Your task to perform on an android device: Do I have any events tomorrow? Image 0: 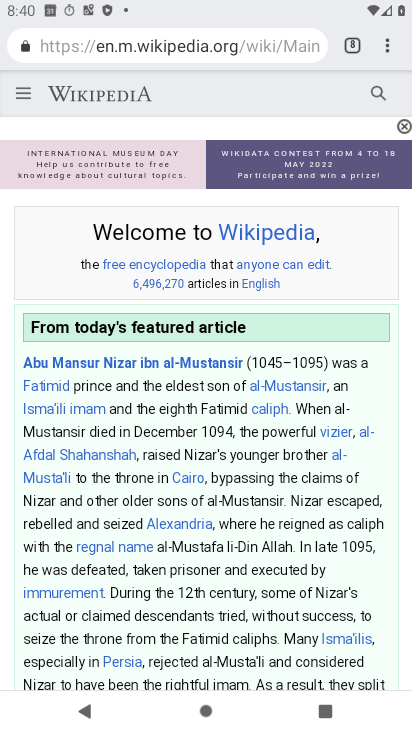
Step 0: press home button
Your task to perform on an android device: Do I have any events tomorrow? Image 1: 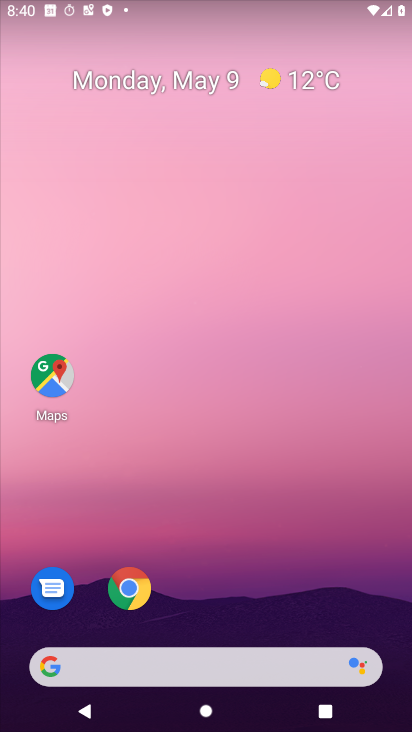
Step 1: drag from (126, 665) to (299, 95)
Your task to perform on an android device: Do I have any events tomorrow? Image 2: 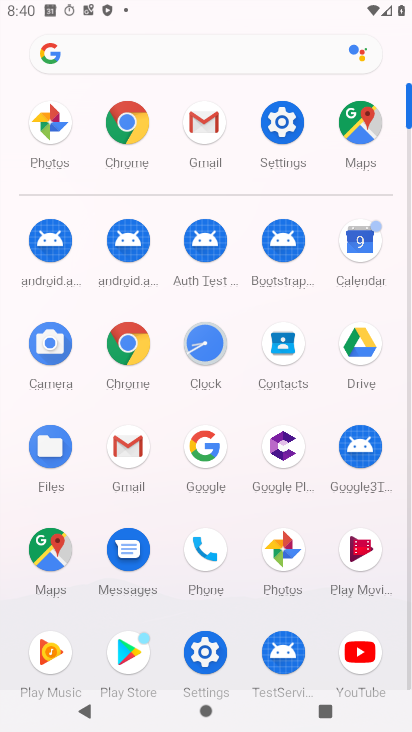
Step 2: click (360, 254)
Your task to perform on an android device: Do I have any events tomorrow? Image 3: 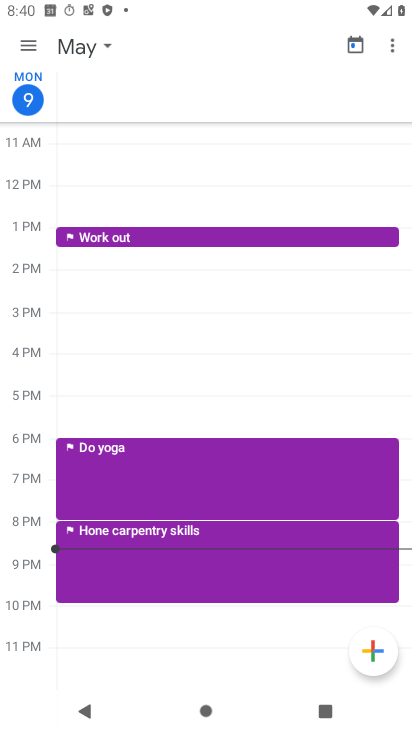
Step 3: click (83, 44)
Your task to perform on an android device: Do I have any events tomorrow? Image 4: 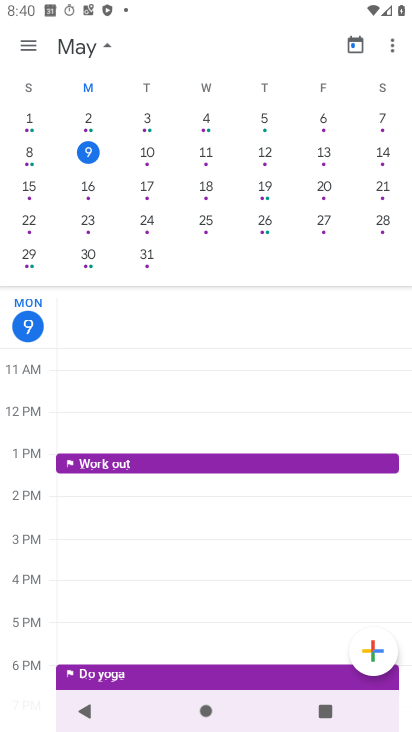
Step 4: click (144, 154)
Your task to perform on an android device: Do I have any events tomorrow? Image 5: 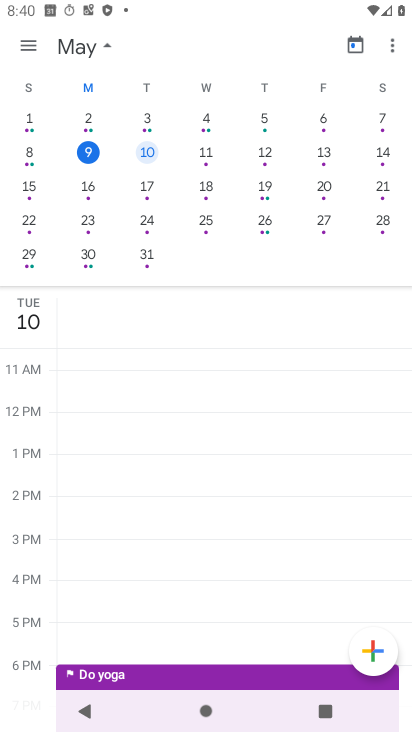
Step 5: click (27, 45)
Your task to perform on an android device: Do I have any events tomorrow? Image 6: 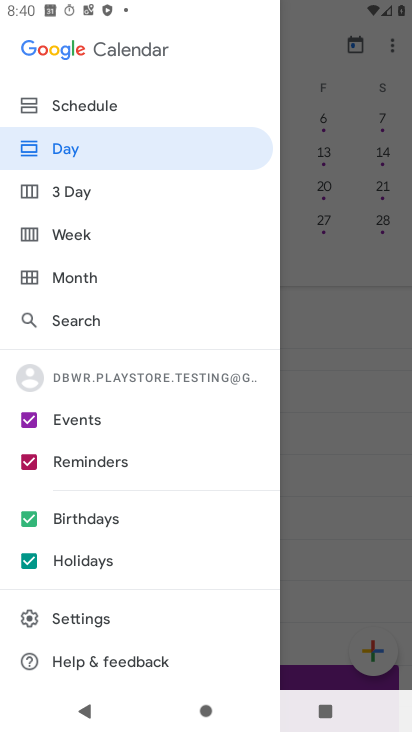
Step 6: click (74, 103)
Your task to perform on an android device: Do I have any events tomorrow? Image 7: 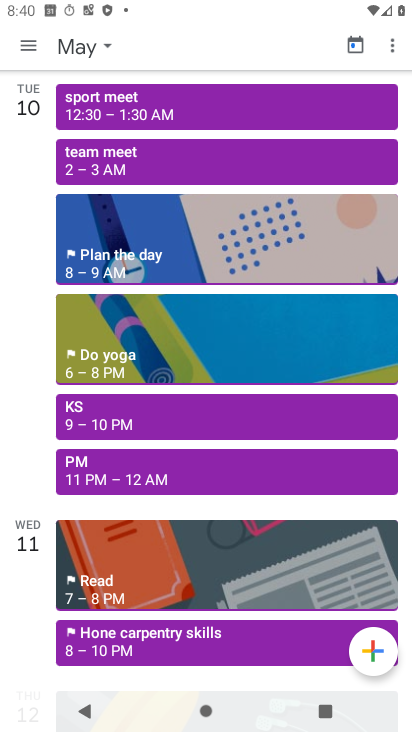
Step 7: click (114, 162)
Your task to perform on an android device: Do I have any events tomorrow? Image 8: 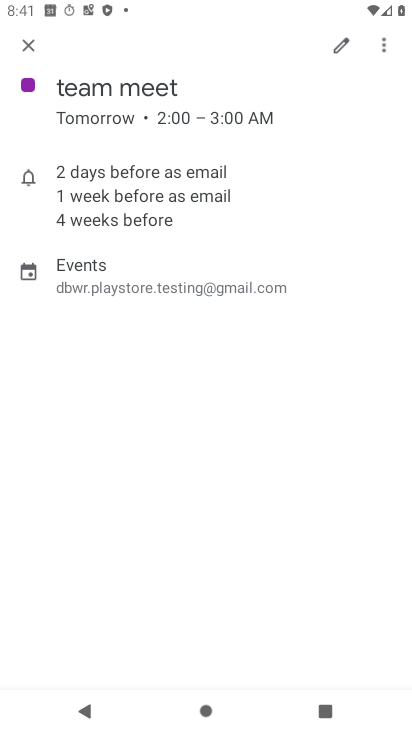
Step 8: task complete